Your task to perform on an android device: change text size in settings app Image 0: 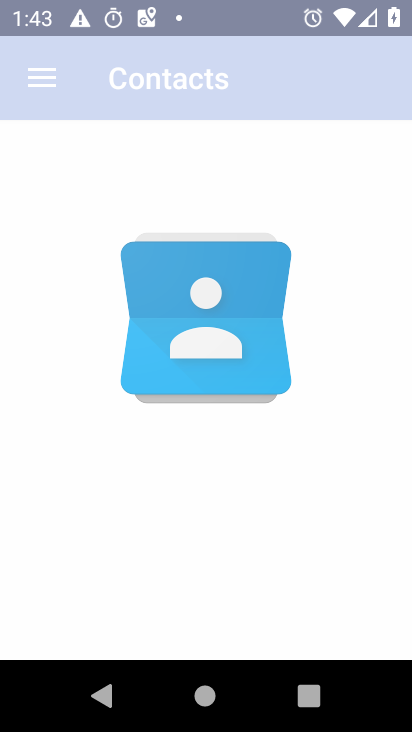
Step 0: drag from (219, 480) to (238, 30)
Your task to perform on an android device: change text size in settings app Image 1: 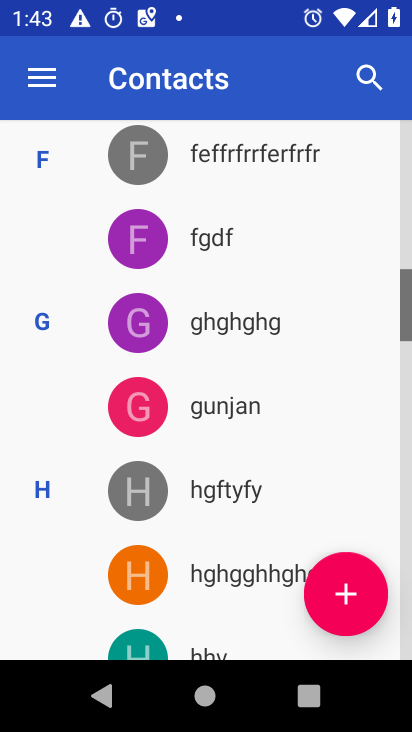
Step 1: press back button
Your task to perform on an android device: change text size in settings app Image 2: 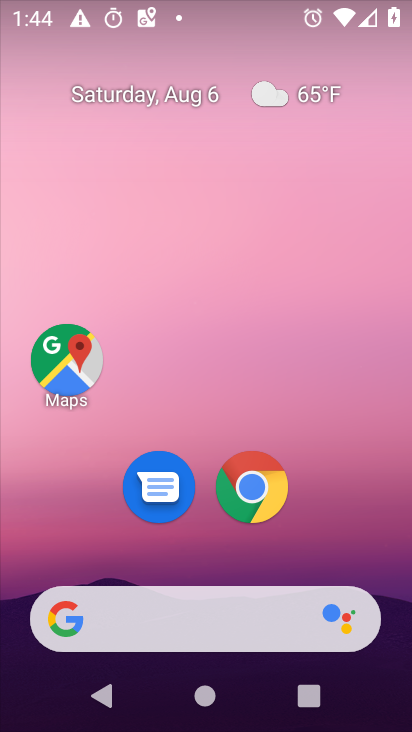
Step 2: drag from (256, 221) to (273, 57)
Your task to perform on an android device: change text size in settings app Image 3: 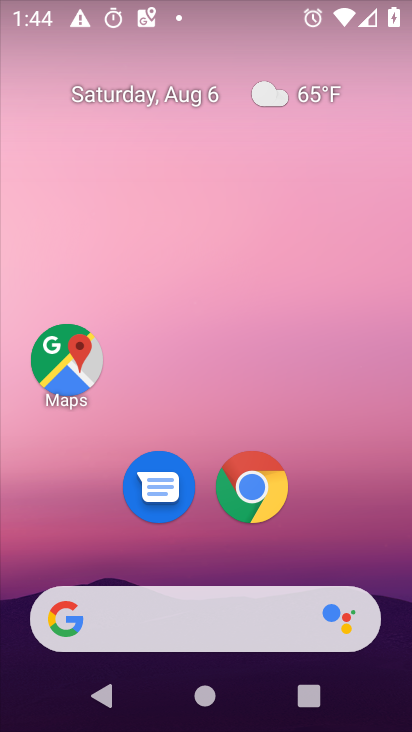
Step 3: drag from (229, 506) to (238, 37)
Your task to perform on an android device: change text size in settings app Image 4: 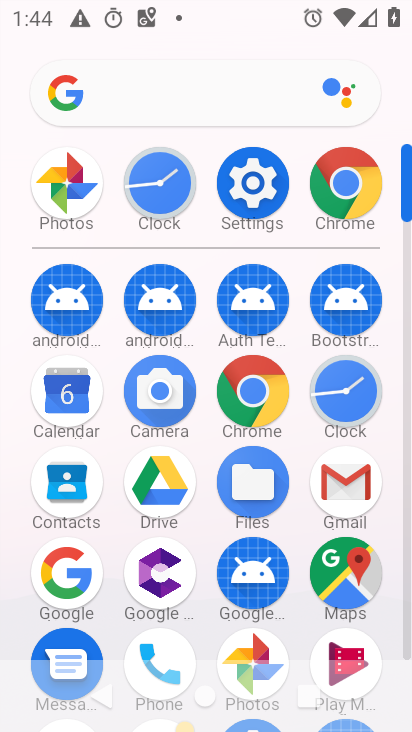
Step 4: click (245, 188)
Your task to perform on an android device: change text size in settings app Image 5: 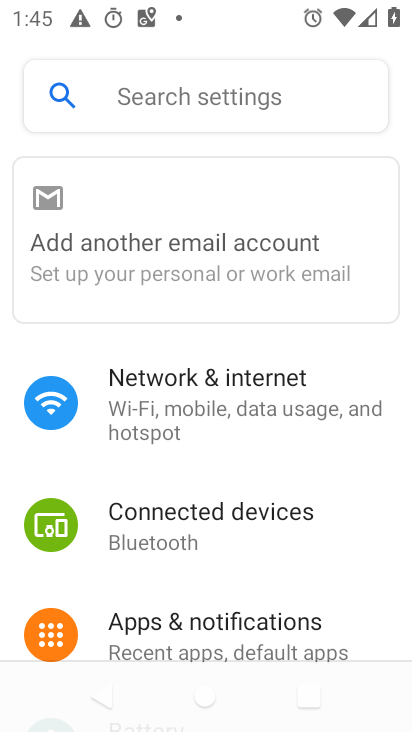
Step 5: click (172, 106)
Your task to perform on an android device: change text size in settings app Image 6: 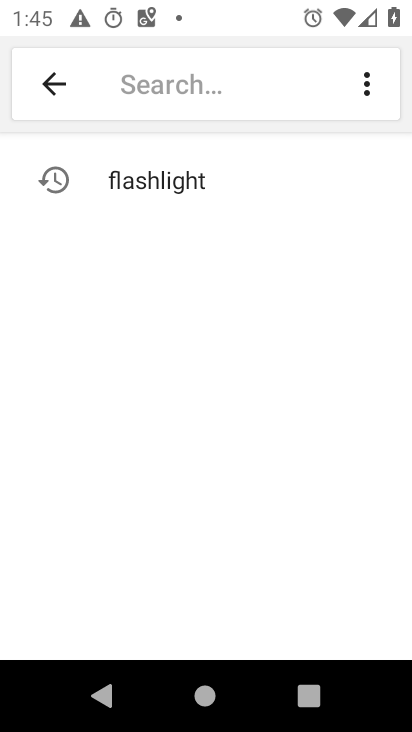
Step 6: click (177, 83)
Your task to perform on an android device: change text size in settings app Image 7: 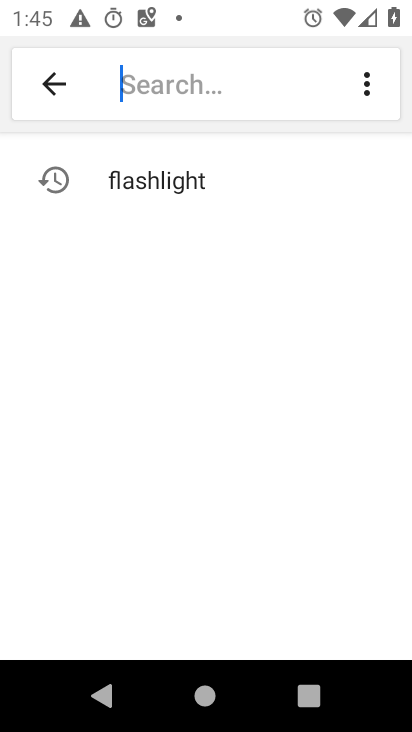
Step 7: type "text size "
Your task to perform on an android device: change text size in settings app Image 8: 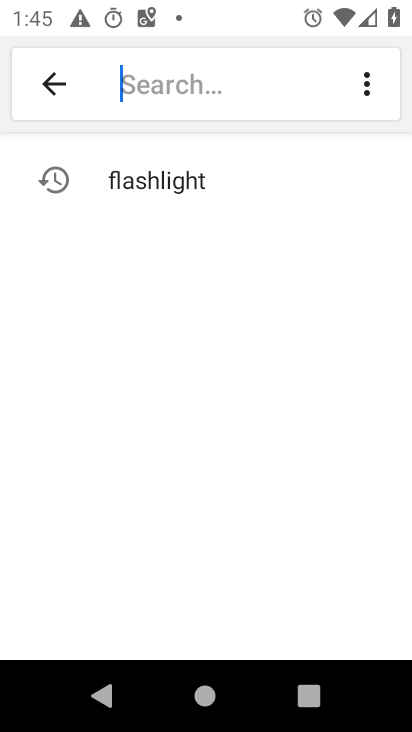
Step 8: click (233, 397)
Your task to perform on an android device: change text size in settings app Image 9: 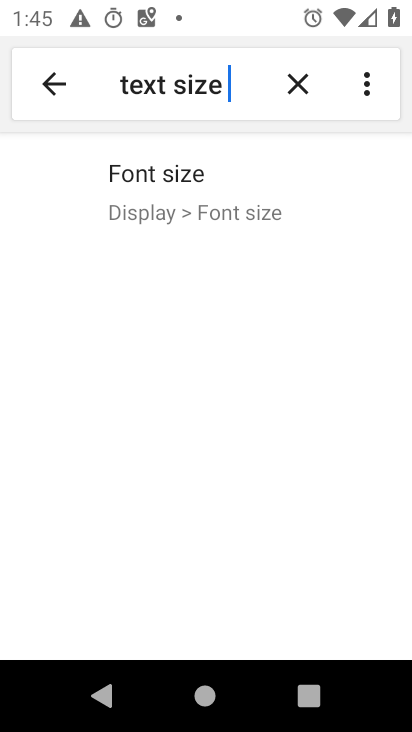
Step 9: click (178, 188)
Your task to perform on an android device: change text size in settings app Image 10: 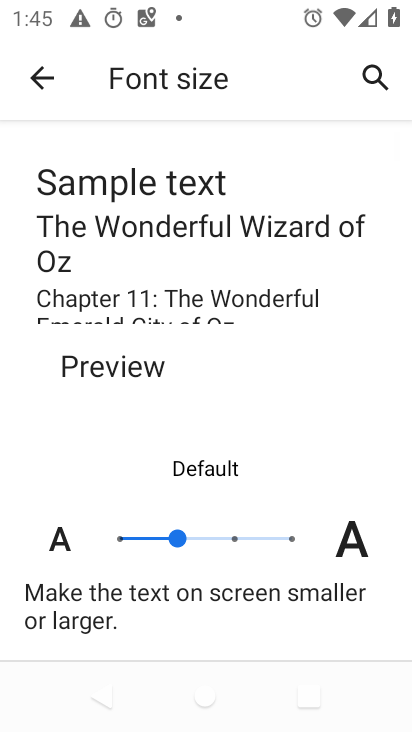
Step 10: click (198, 540)
Your task to perform on an android device: change text size in settings app Image 11: 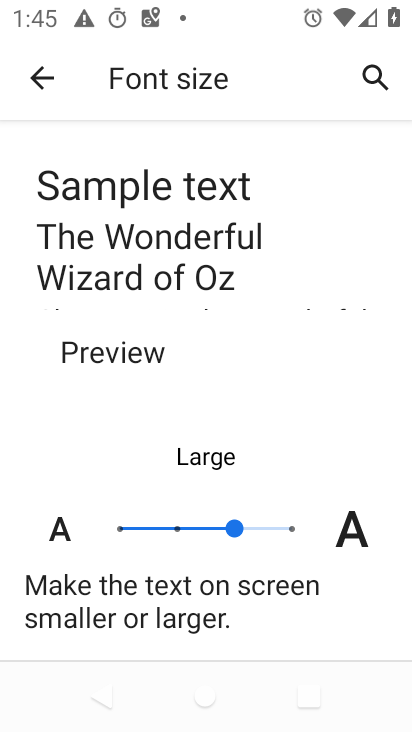
Step 11: task complete